Your task to perform on an android device: add a contact Image 0: 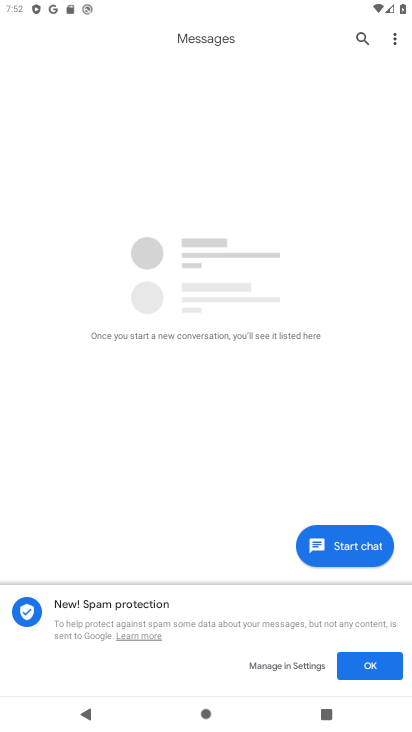
Step 0: press back button
Your task to perform on an android device: add a contact Image 1: 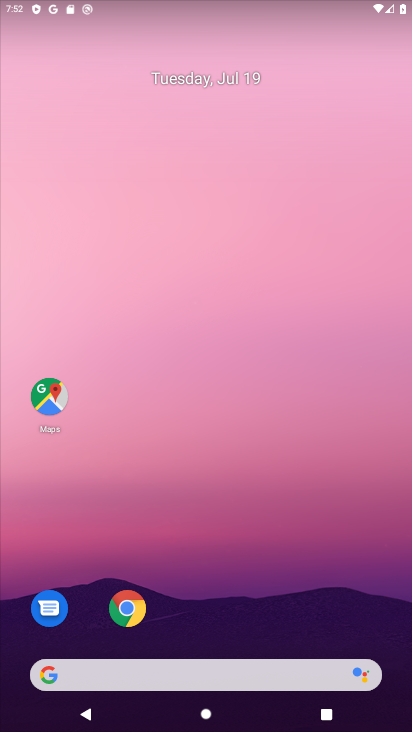
Step 1: drag from (398, 633) to (319, 102)
Your task to perform on an android device: add a contact Image 2: 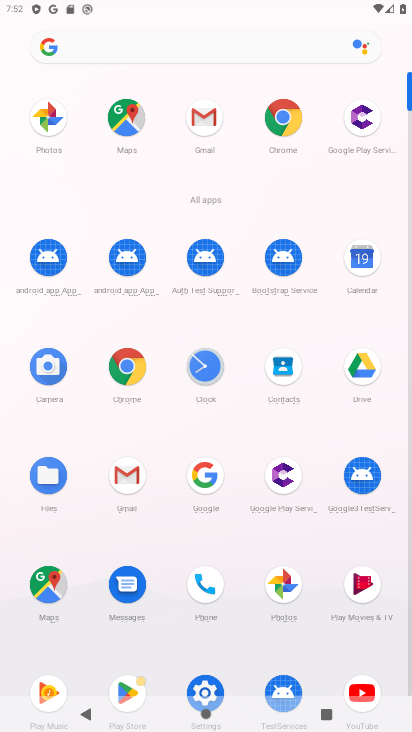
Step 2: click (274, 363)
Your task to perform on an android device: add a contact Image 3: 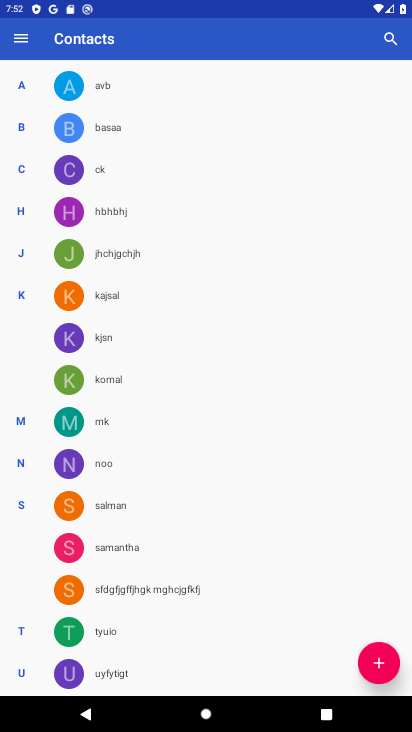
Step 3: click (369, 665)
Your task to perform on an android device: add a contact Image 4: 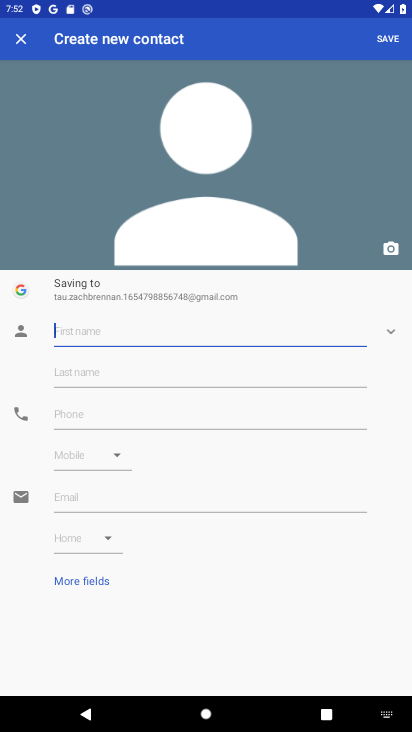
Step 4: type "Raju"
Your task to perform on an android device: add a contact Image 5: 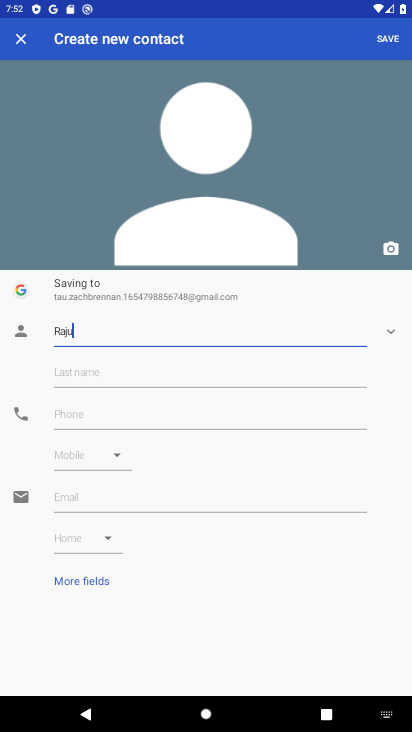
Step 5: click (130, 367)
Your task to perform on an android device: add a contact Image 6: 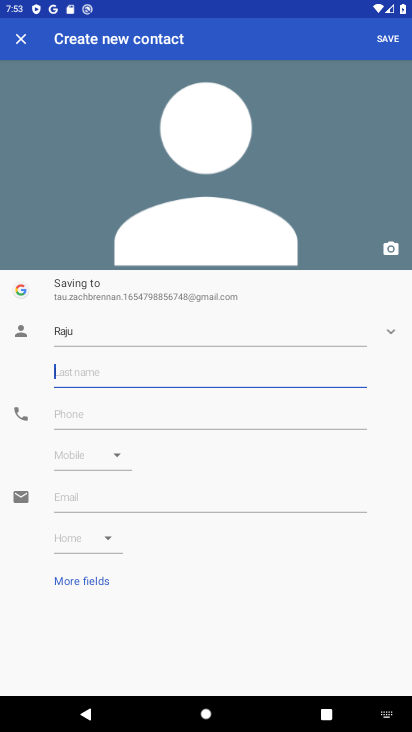
Step 6: type "raj"
Your task to perform on an android device: add a contact Image 7: 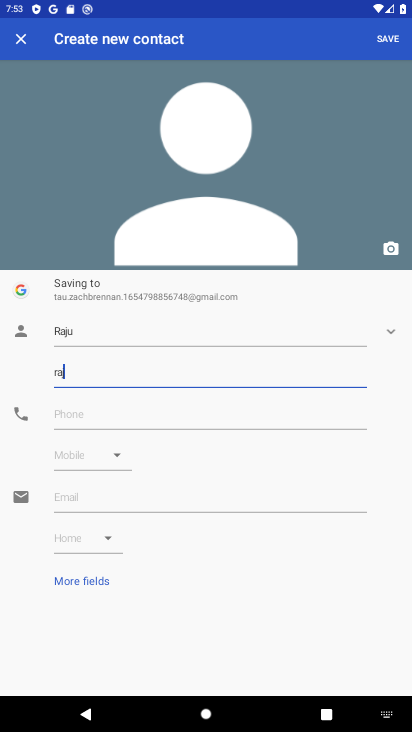
Step 7: click (124, 410)
Your task to perform on an android device: add a contact Image 8: 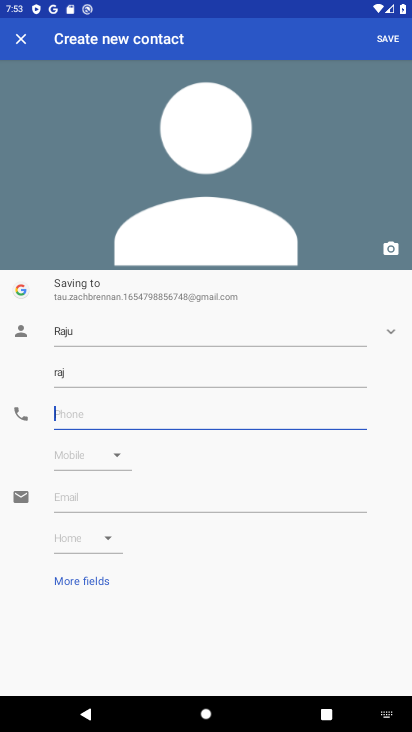
Step 8: type "43343434344343"
Your task to perform on an android device: add a contact Image 9: 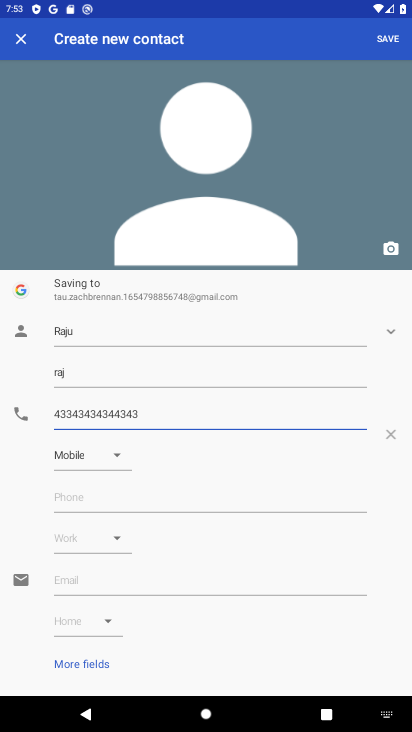
Step 9: click (388, 42)
Your task to perform on an android device: add a contact Image 10: 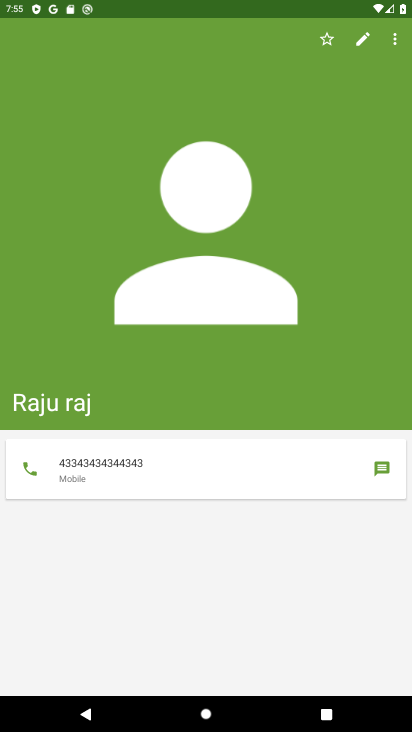
Step 10: task complete